Your task to perform on an android device: Search for Italian restaurants on Maps Image 0: 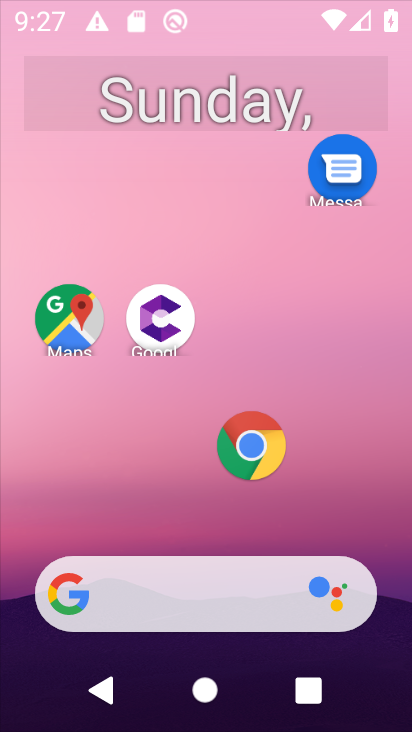
Step 0: click (141, 167)
Your task to perform on an android device: Search for Italian restaurants on Maps Image 1: 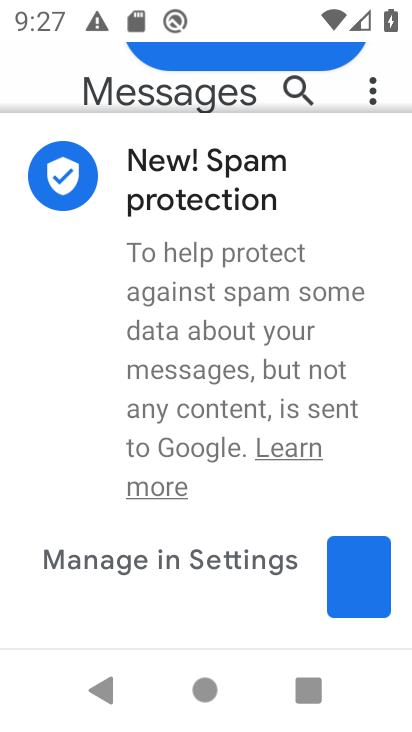
Step 1: press home button
Your task to perform on an android device: Search for Italian restaurants on Maps Image 2: 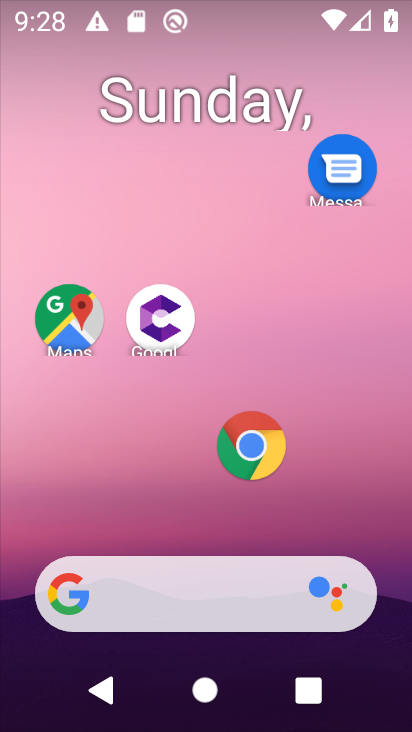
Step 2: click (73, 311)
Your task to perform on an android device: Search for Italian restaurants on Maps Image 3: 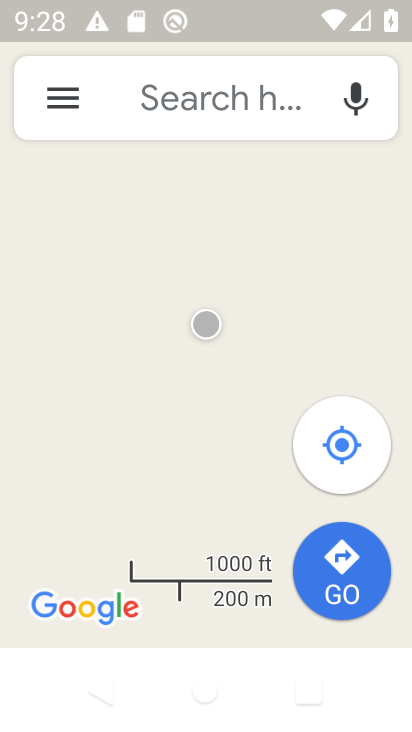
Step 3: click (177, 107)
Your task to perform on an android device: Search for Italian restaurants on Maps Image 4: 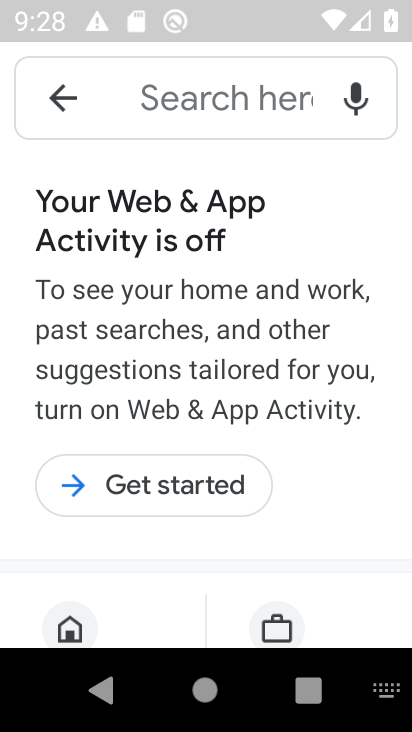
Step 4: type "Italian restaurants "
Your task to perform on an android device: Search for Italian restaurants on Maps Image 5: 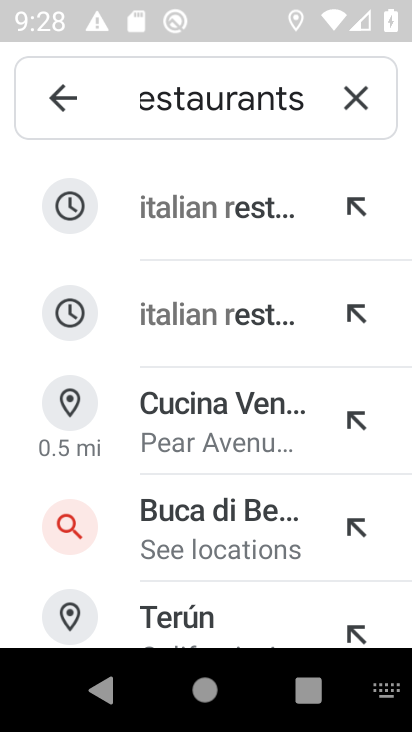
Step 5: press enter
Your task to perform on an android device: Search for Italian restaurants on Maps Image 6: 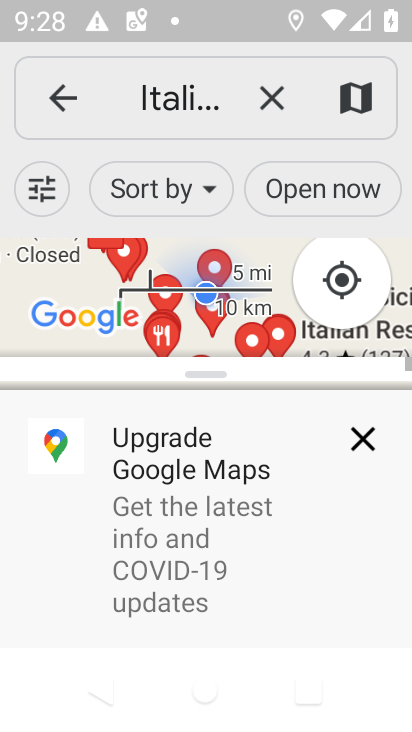
Step 6: task complete